Your task to perform on an android device: delete browsing data in the chrome app Image 0: 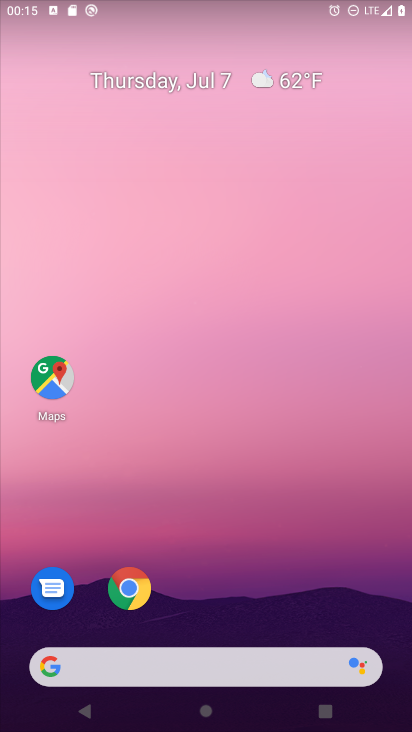
Step 0: click (130, 595)
Your task to perform on an android device: delete browsing data in the chrome app Image 1: 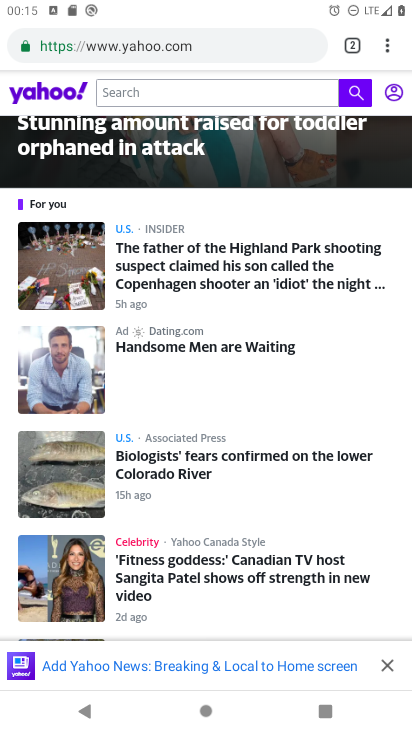
Step 1: click (386, 46)
Your task to perform on an android device: delete browsing data in the chrome app Image 2: 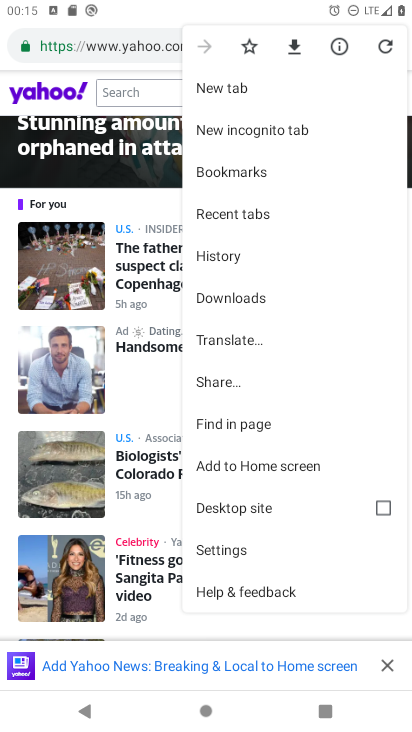
Step 2: click (225, 255)
Your task to perform on an android device: delete browsing data in the chrome app Image 3: 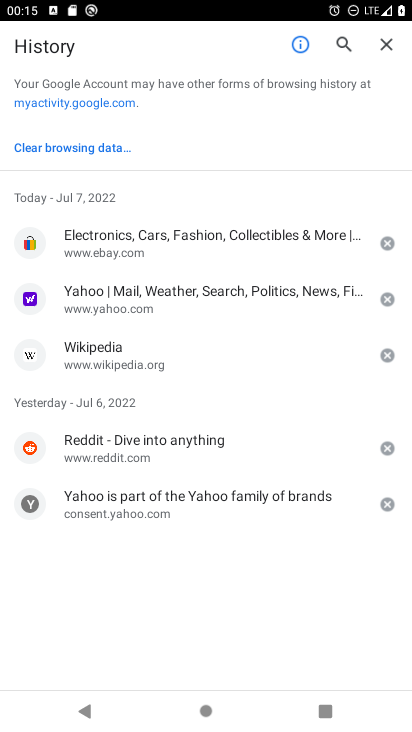
Step 3: click (51, 133)
Your task to perform on an android device: delete browsing data in the chrome app Image 4: 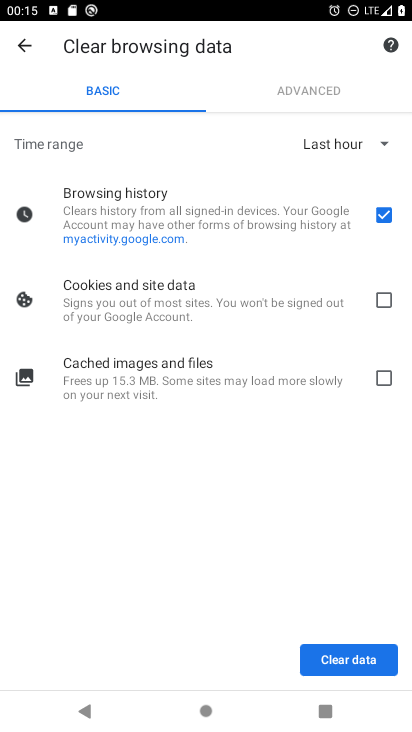
Step 4: click (345, 665)
Your task to perform on an android device: delete browsing data in the chrome app Image 5: 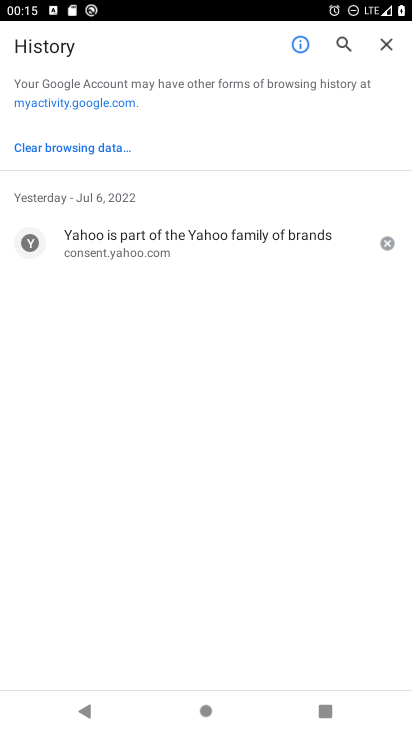
Step 5: task complete